Your task to perform on an android device: create a new album in the google photos Image 0: 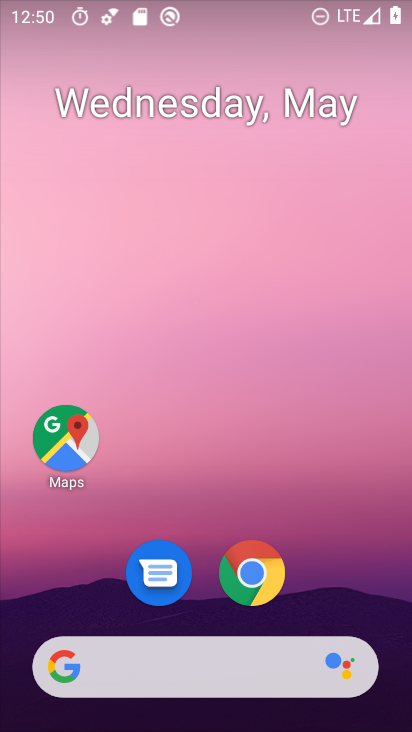
Step 0: drag from (333, 536) to (250, 47)
Your task to perform on an android device: create a new album in the google photos Image 1: 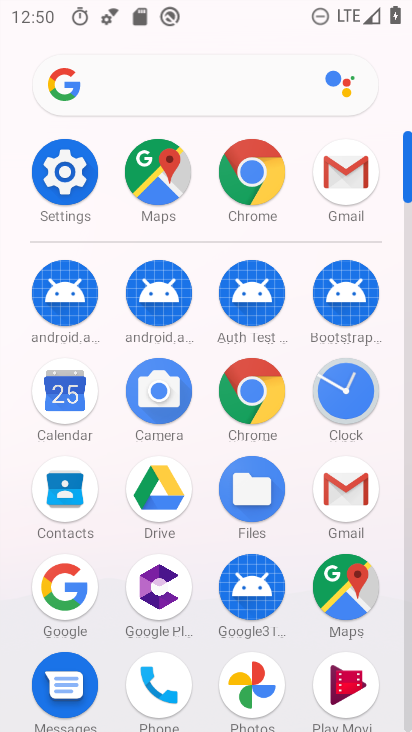
Step 1: drag from (3, 594) to (7, 255)
Your task to perform on an android device: create a new album in the google photos Image 2: 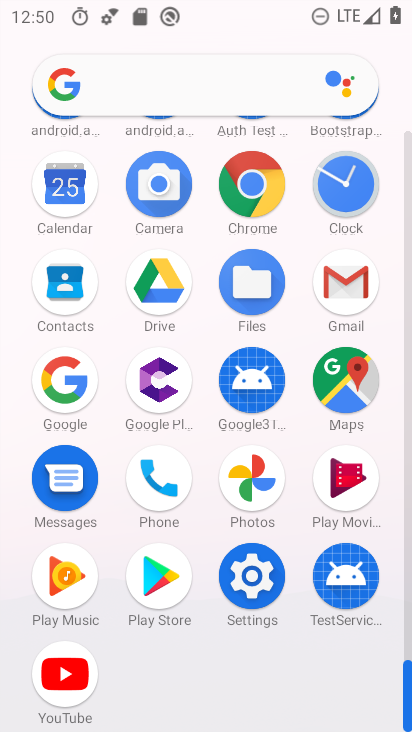
Step 2: click (250, 473)
Your task to perform on an android device: create a new album in the google photos Image 3: 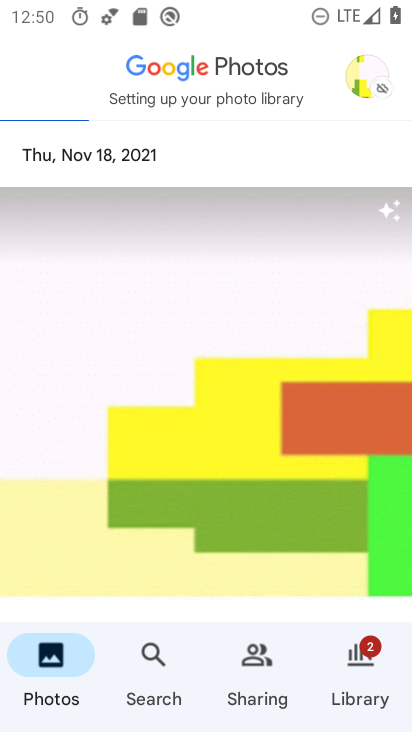
Step 3: drag from (268, 582) to (235, 137)
Your task to perform on an android device: create a new album in the google photos Image 4: 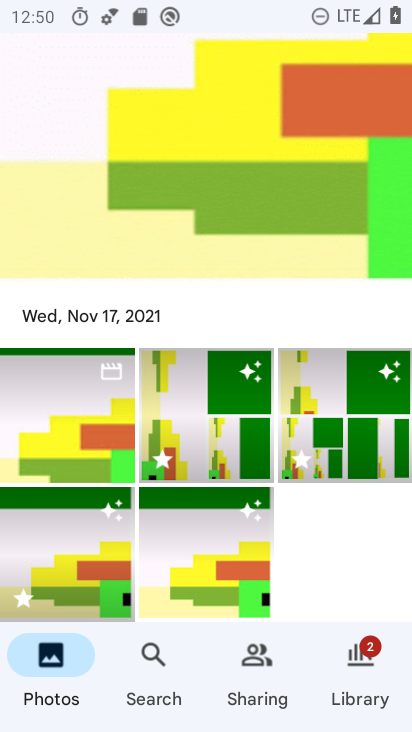
Step 4: click (78, 437)
Your task to perform on an android device: create a new album in the google photos Image 5: 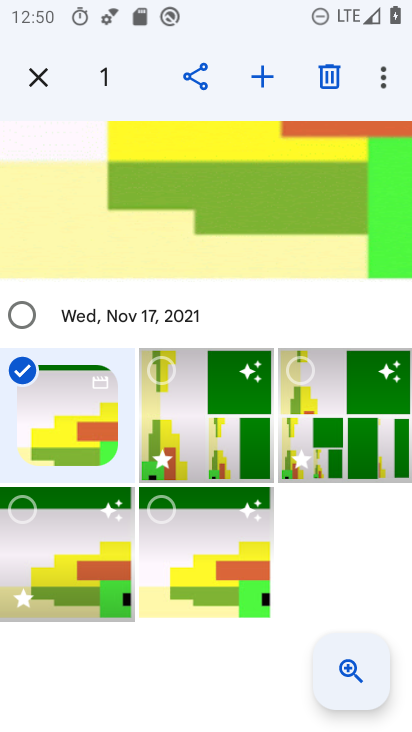
Step 5: click (259, 61)
Your task to perform on an android device: create a new album in the google photos Image 6: 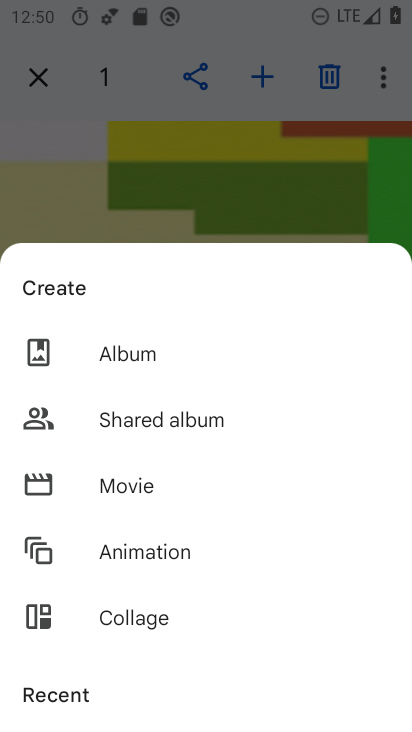
Step 6: click (171, 363)
Your task to perform on an android device: create a new album in the google photos Image 7: 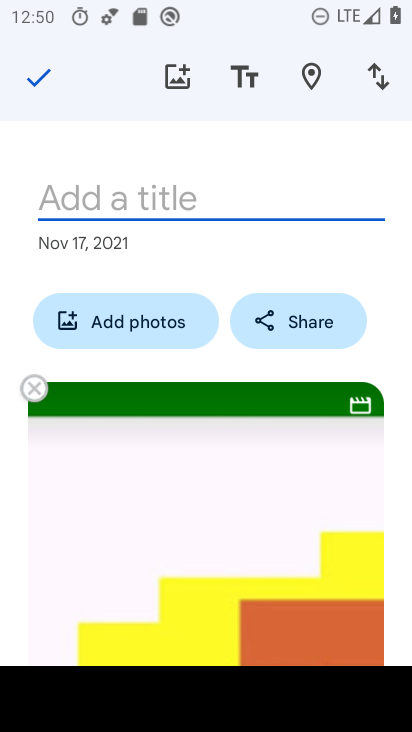
Step 7: type "fdfgfh"
Your task to perform on an android device: create a new album in the google photos Image 8: 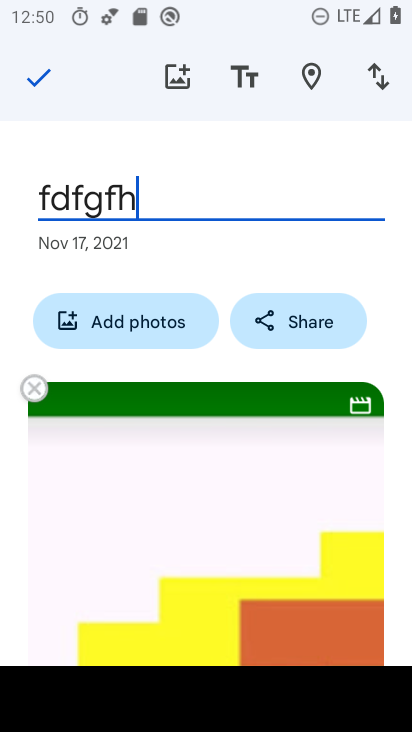
Step 8: type ""
Your task to perform on an android device: create a new album in the google photos Image 9: 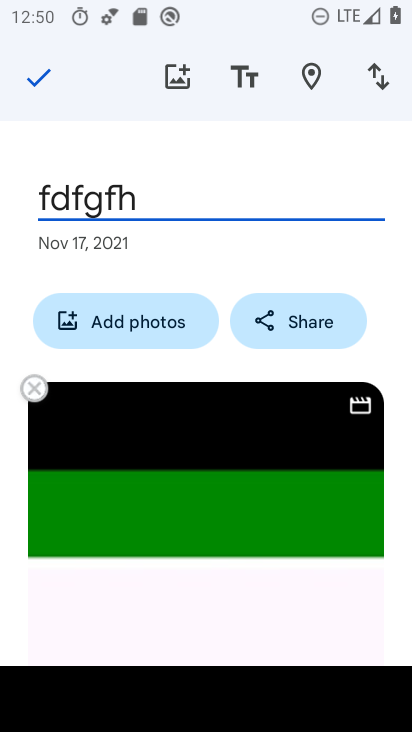
Step 9: click (43, 81)
Your task to perform on an android device: create a new album in the google photos Image 10: 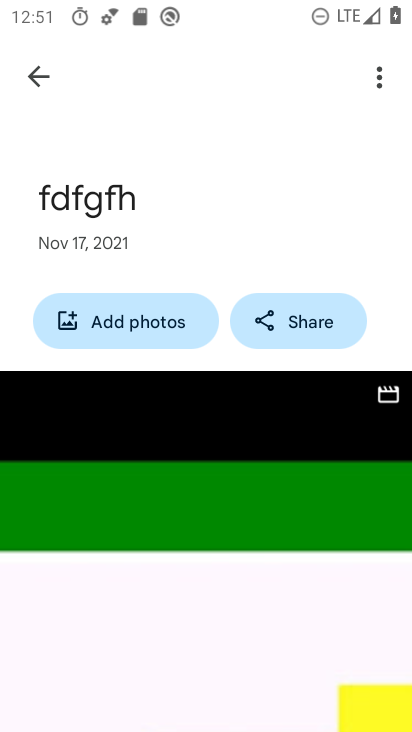
Step 10: task complete